Your task to perform on an android device: move a message to another label in the gmail app Image 0: 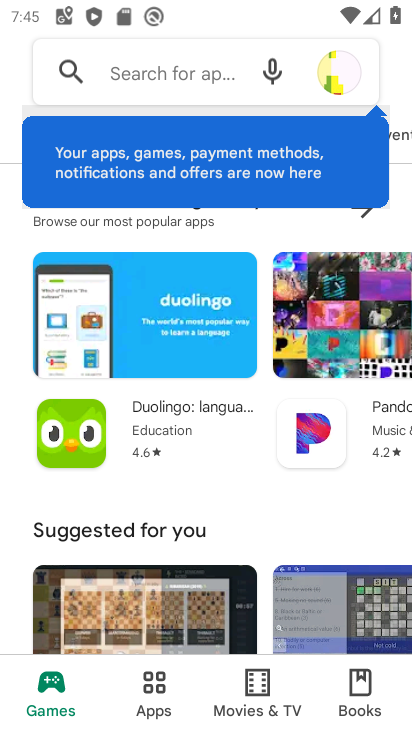
Step 0: press home button
Your task to perform on an android device: move a message to another label in the gmail app Image 1: 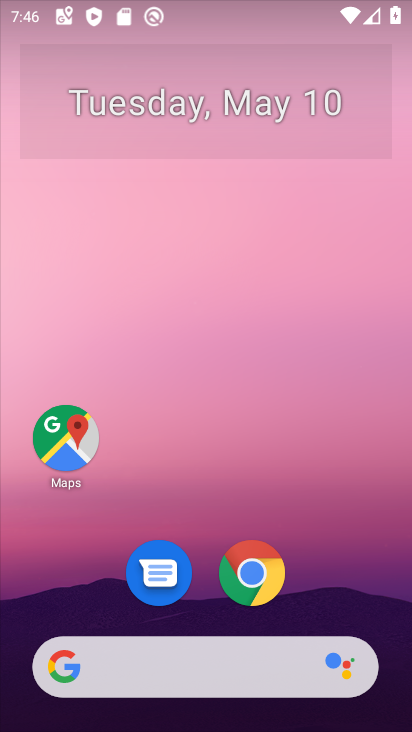
Step 1: drag from (375, 569) to (366, 123)
Your task to perform on an android device: move a message to another label in the gmail app Image 2: 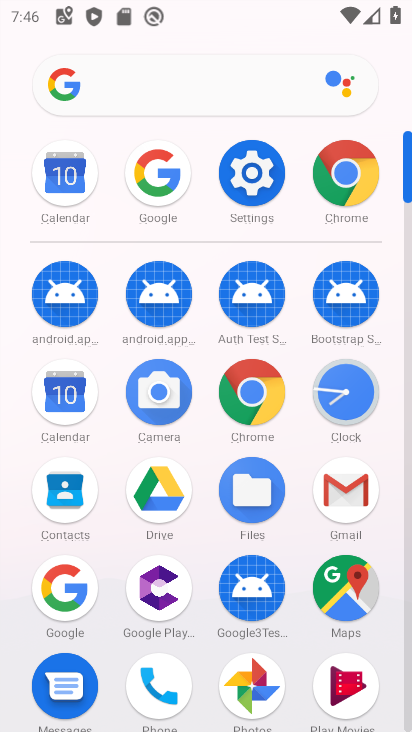
Step 2: drag from (201, 637) to (190, 294)
Your task to perform on an android device: move a message to another label in the gmail app Image 3: 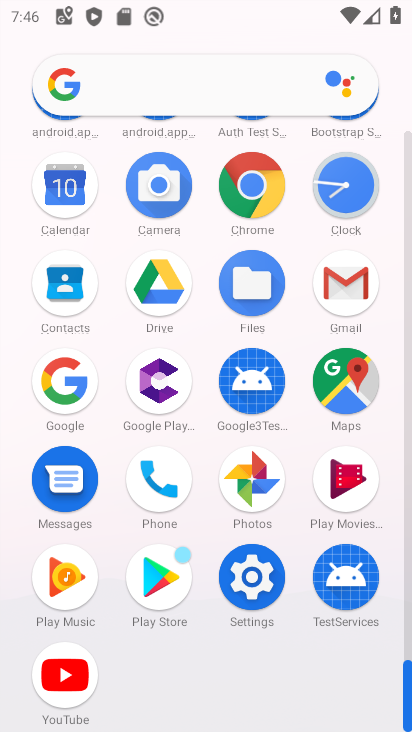
Step 3: click (356, 295)
Your task to perform on an android device: move a message to another label in the gmail app Image 4: 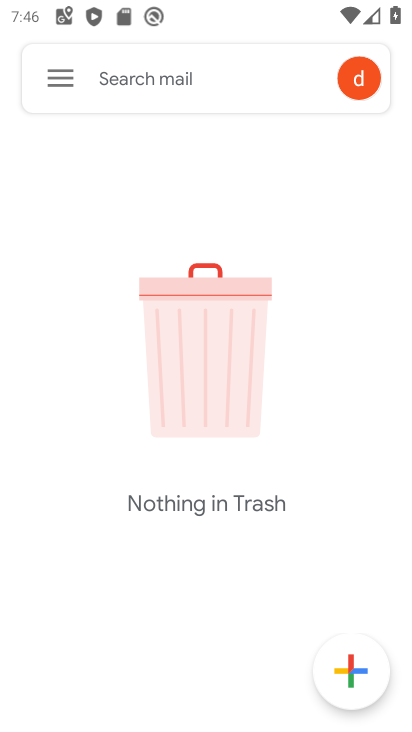
Step 4: click (57, 68)
Your task to perform on an android device: move a message to another label in the gmail app Image 5: 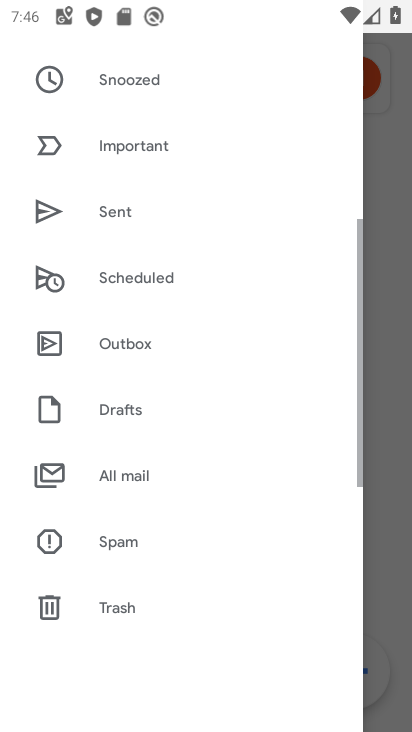
Step 5: drag from (189, 168) to (196, 629)
Your task to perform on an android device: move a message to another label in the gmail app Image 6: 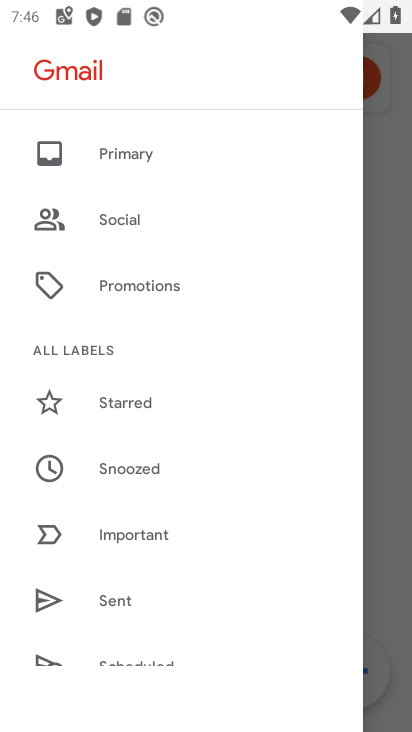
Step 6: drag from (191, 594) to (222, 190)
Your task to perform on an android device: move a message to another label in the gmail app Image 7: 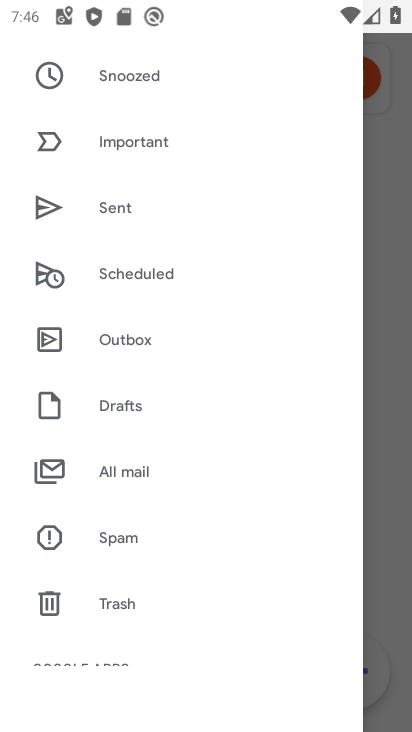
Step 7: drag from (239, 600) to (237, 265)
Your task to perform on an android device: move a message to another label in the gmail app Image 8: 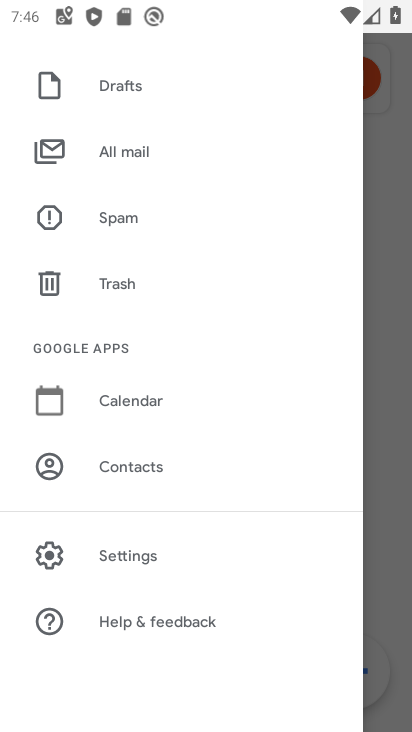
Step 8: drag from (222, 194) to (241, 621)
Your task to perform on an android device: move a message to another label in the gmail app Image 9: 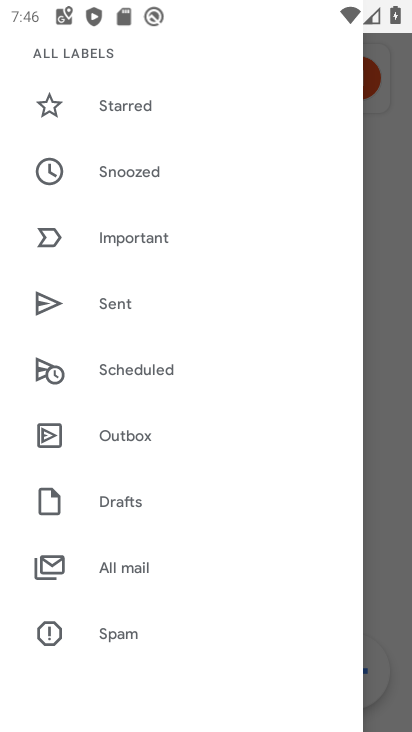
Step 9: drag from (202, 236) to (222, 679)
Your task to perform on an android device: move a message to another label in the gmail app Image 10: 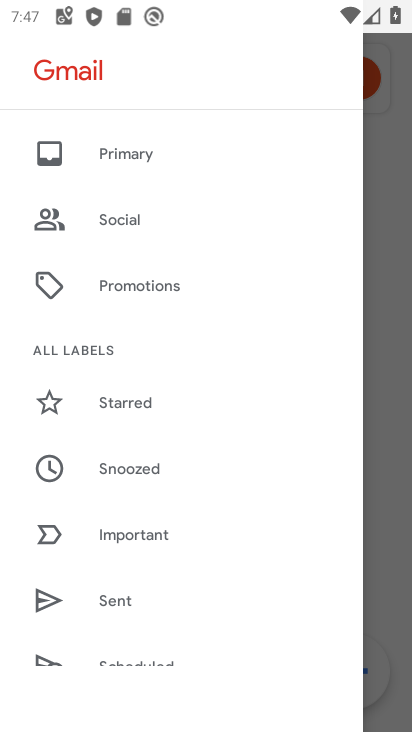
Step 10: drag from (209, 610) to (220, 208)
Your task to perform on an android device: move a message to another label in the gmail app Image 11: 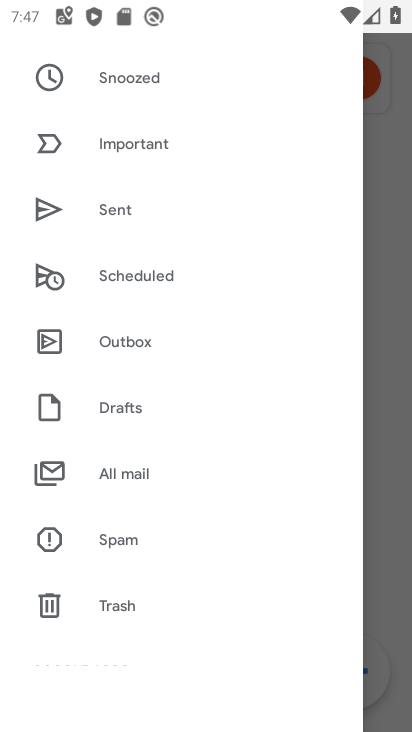
Step 11: drag from (201, 580) to (196, 296)
Your task to perform on an android device: move a message to another label in the gmail app Image 12: 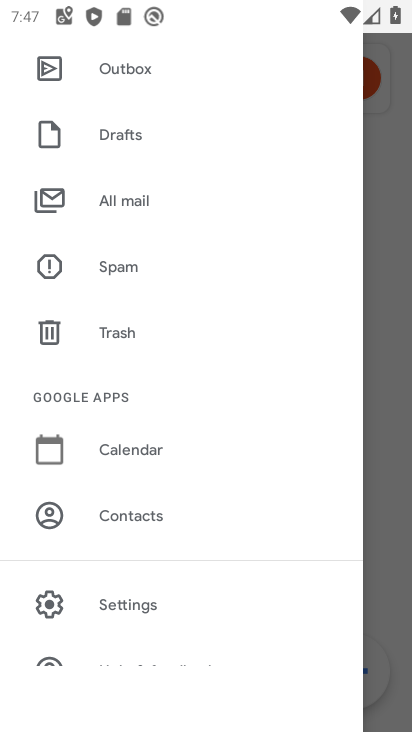
Step 12: drag from (213, 128) to (227, 624)
Your task to perform on an android device: move a message to another label in the gmail app Image 13: 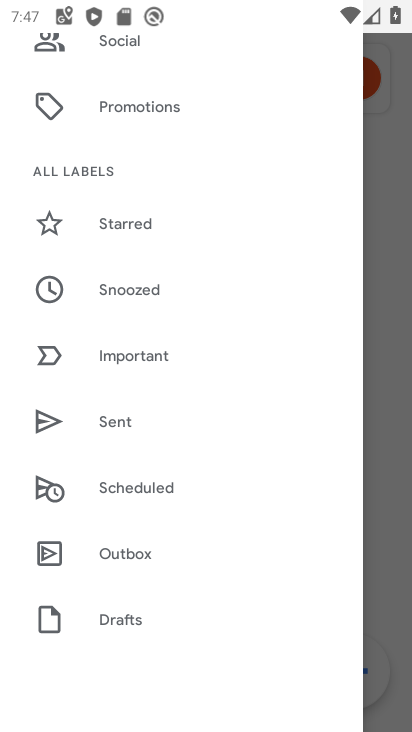
Step 13: drag from (195, 201) to (229, 658)
Your task to perform on an android device: move a message to another label in the gmail app Image 14: 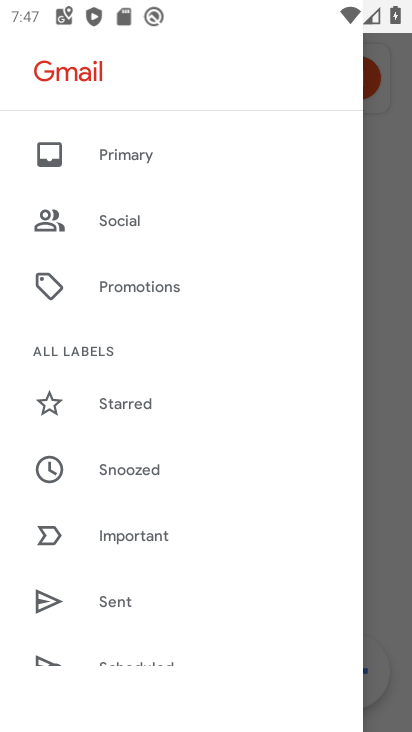
Step 14: drag from (184, 561) to (182, 275)
Your task to perform on an android device: move a message to another label in the gmail app Image 15: 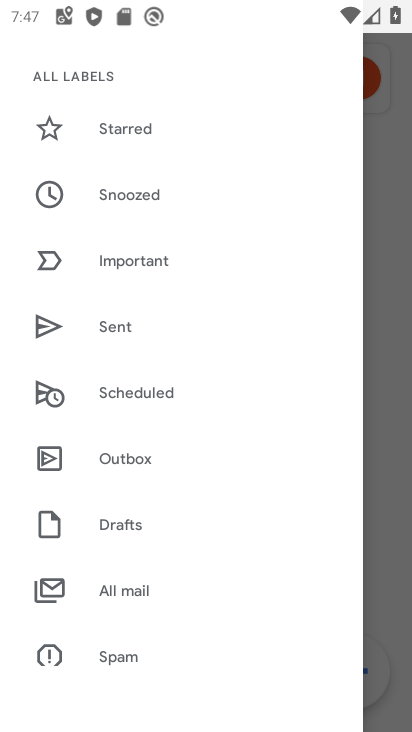
Step 15: drag from (171, 245) to (209, 627)
Your task to perform on an android device: move a message to another label in the gmail app Image 16: 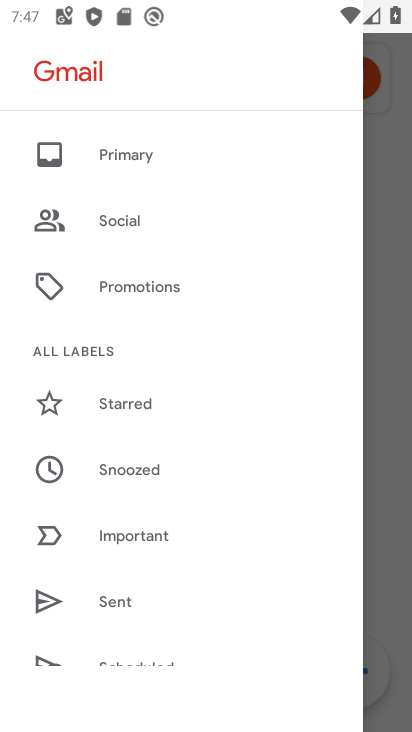
Step 16: drag from (288, 679) to (289, 213)
Your task to perform on an android device: move a message to another label in the gmail app Image 17: 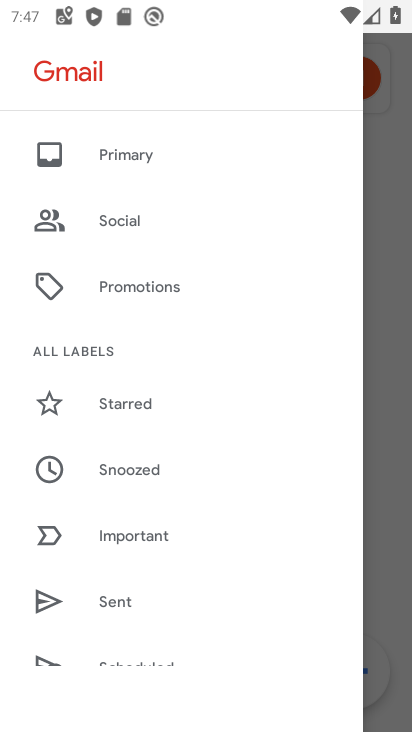
Step 17: drag from (254, 574) to (260, 221)
Your task to perform on an android device: move a message to another label in the gmail app Image 18: 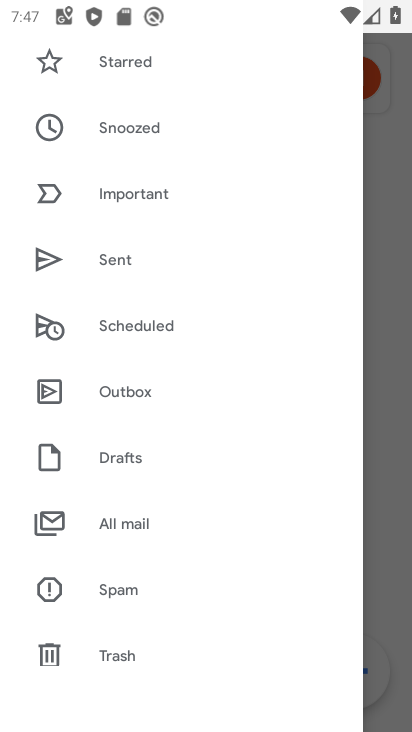
Step 18: click (157, 511)
Your task to perform on an android device: move a message to another label in the gmail app Image 19: 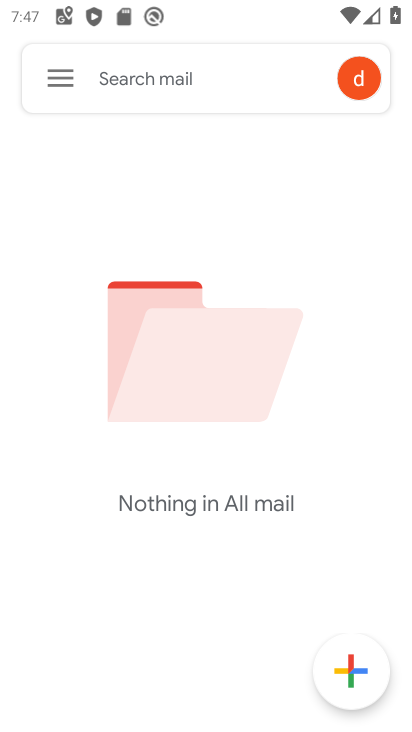
Step 19: task complete